Your task to perform on an android device: Open Yahoo.com Image 0: 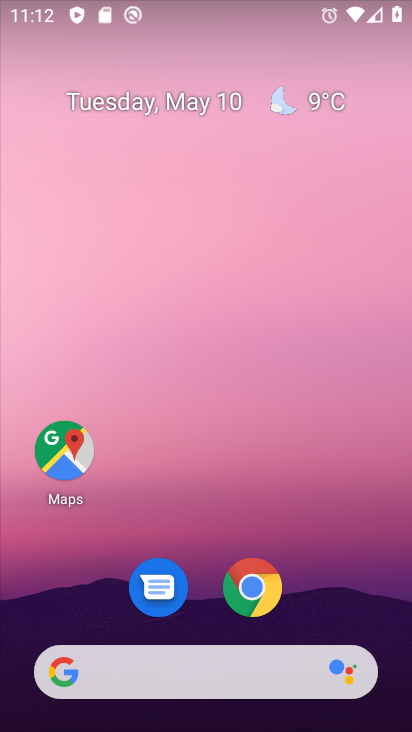
Step 0: click (246, 599)
Your task to perform on an android device: Open Yahoo.com Image 1: 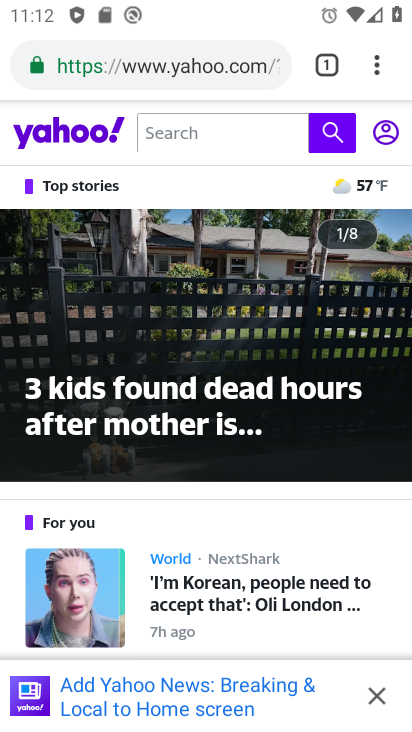
Step 1: task complete